Your task to perform on an android device: Is it going to rain today? Image 0: 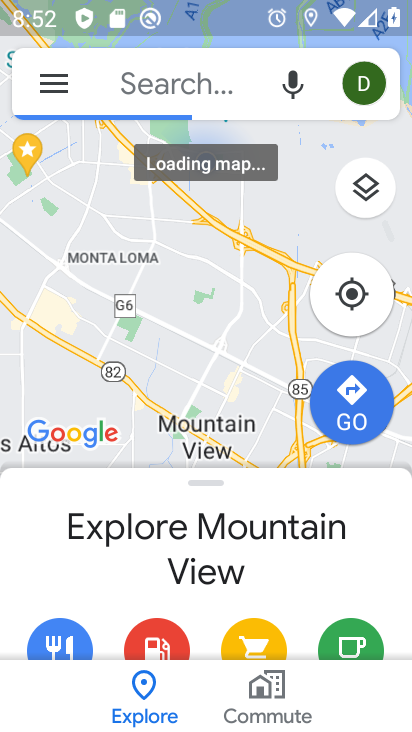
Step 0: press home button
Your task to perform on an android device: Is it going to rain today? Image 1: 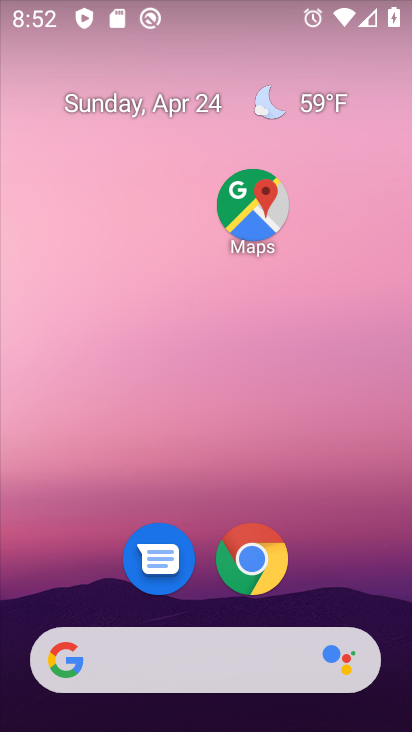
Step 1: click (120, 665)
Your task to perform on an android device: Is it going to rain today? Image 2: 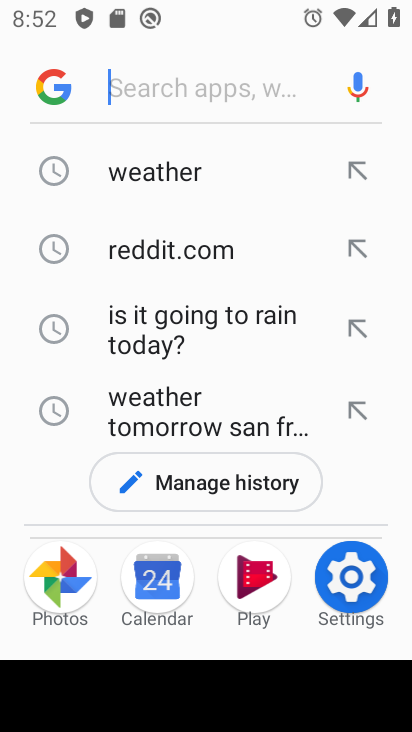
Step 2: click (154, 167)
Your task to perform on an android device: Is it going to rain today? Image 3: 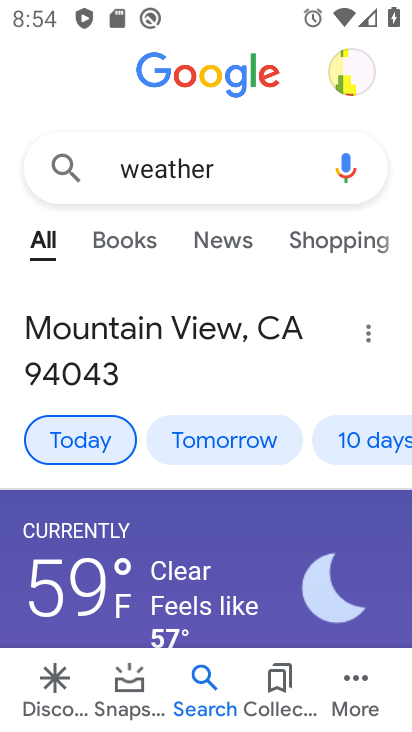
Step 3: task complete